Your task to perform on an android device: Is it going to rain this weekend? Image 0: 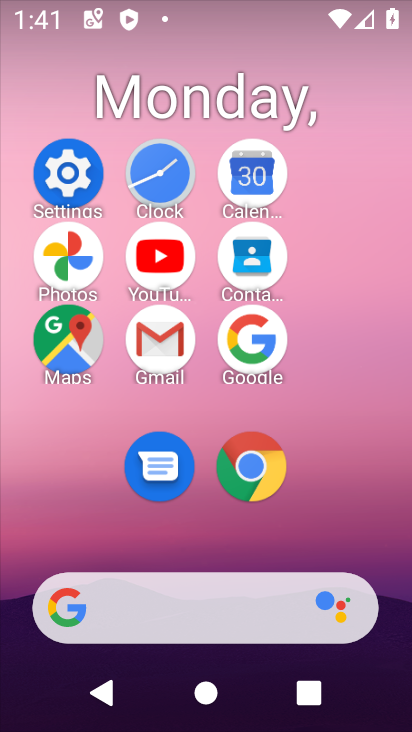
Step 0: click (248, 338)
Your task to perform on an android device: Is it going to rain this weekend? Image 1: 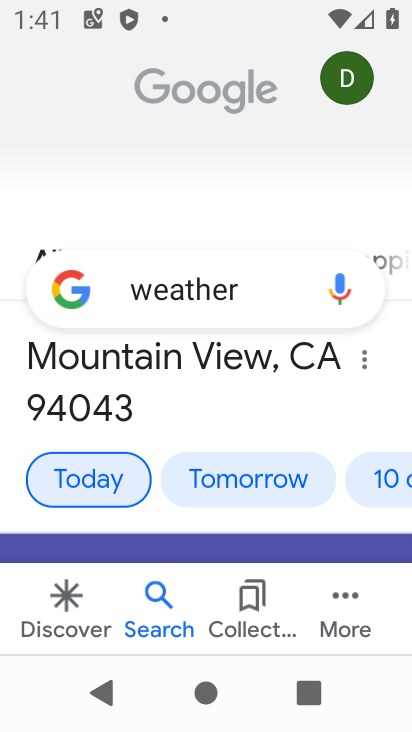
Step 1: click (262, 473)
Your task to perform on an android device: Is it going to rain this weekend? Image 2: 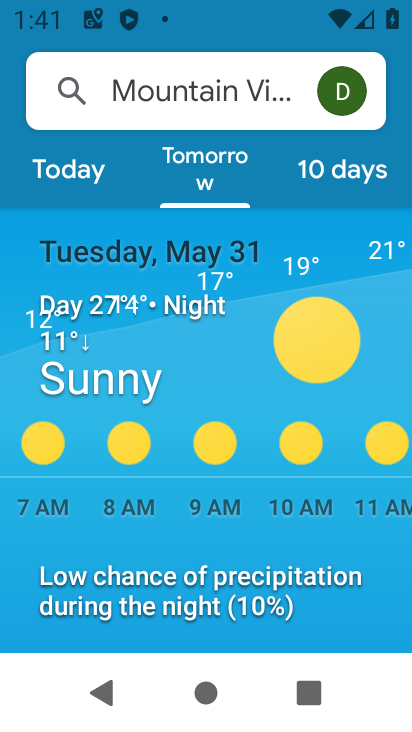
Step 2: click (321, 176)
Your task to perform on an android device: Is it going to rain this weekend? Image 3: 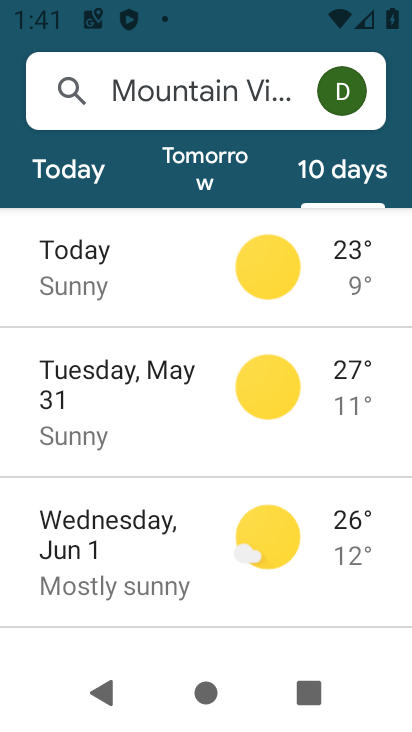
Step 3: drag from (141, 568) to (166, 225)
Your task to perform on an android device: Is it going to rain this weekend? Image 4: 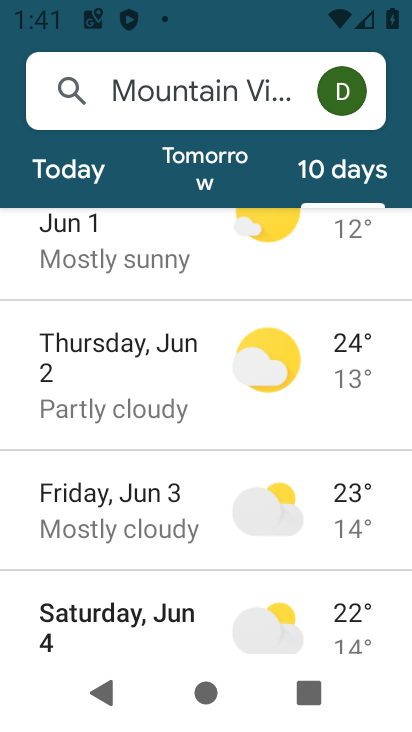
Step 4: click (98, 600)
Your task to perform on an android device: Is it going to rain this weekend? Image 5: 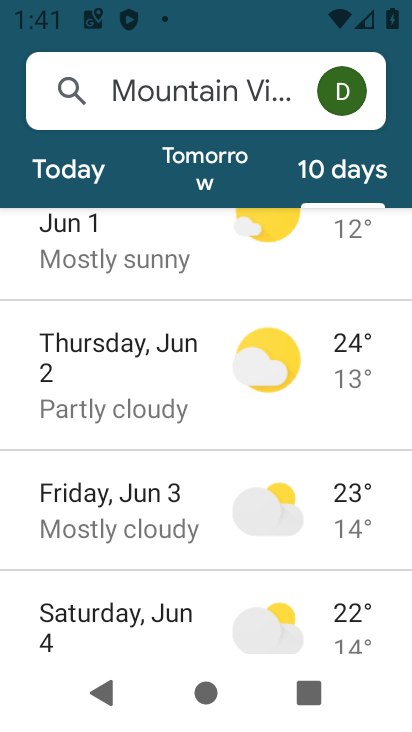
Step 5: drag from (180, 603) to (234, 235)
Your task to perform on an android device: Is it going to rain this weekend? Image 6: 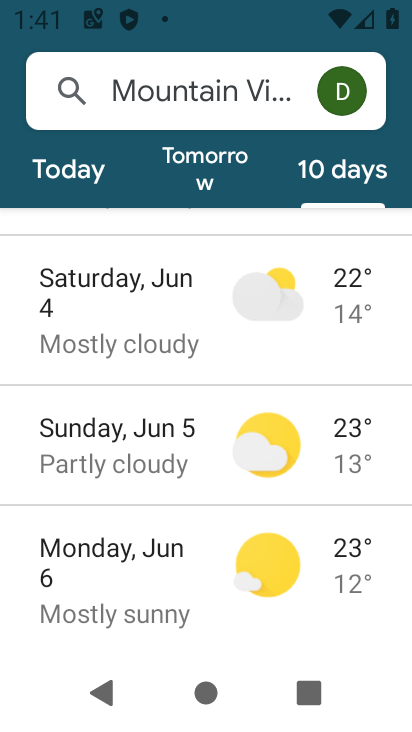
Step 6: click (161, 333)
Your task to perform on an android device: Is it going to rain this weekend? Image 7: 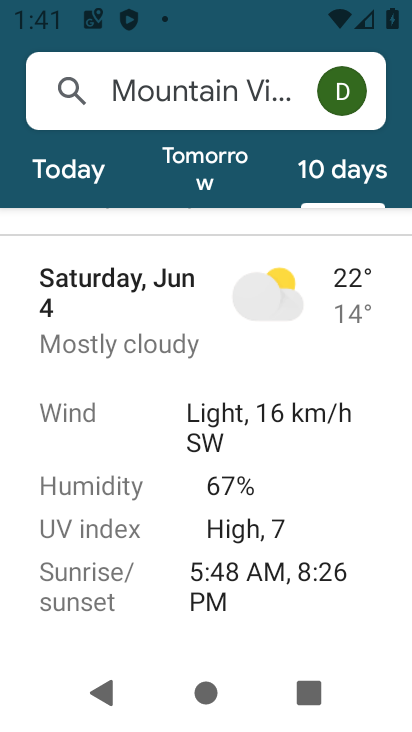
Step 7: task complete